Your task to perform on an android device: Go to Google maps Image 0: 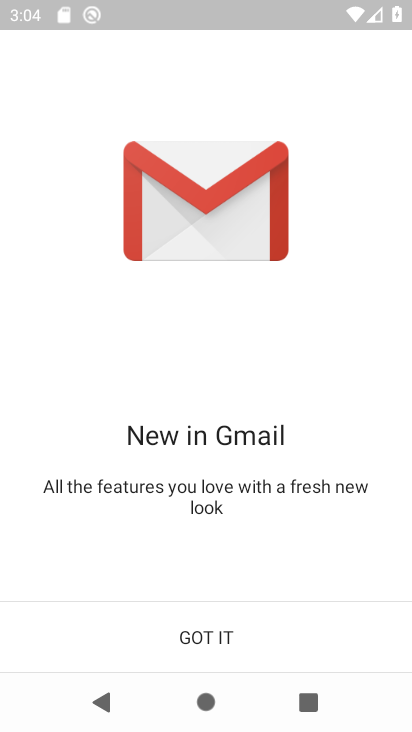
Step 0: press home button
Your task to perform on an android device: Go to Google maps Image 1: 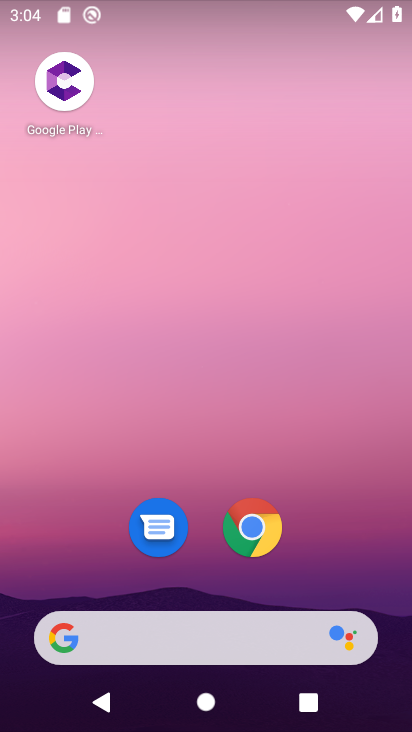
Step 1: drag from (386, 625) to (326, 77)
Your task to perform on an android device: Go to Google maps Image 2: 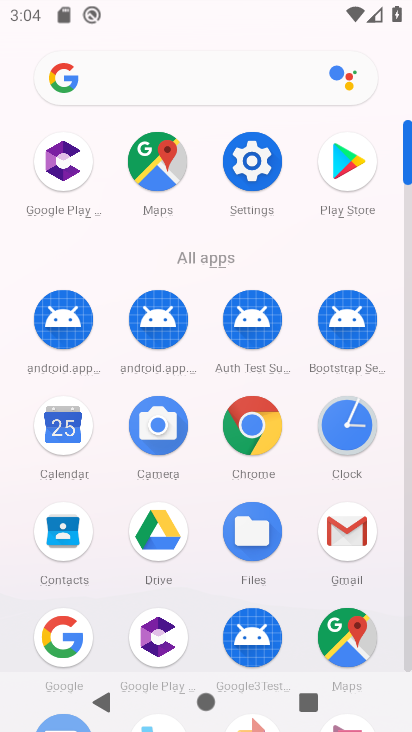
Step 2: click (407, 658)
Your task to perform on an android device: Go to Google maps Image 3: 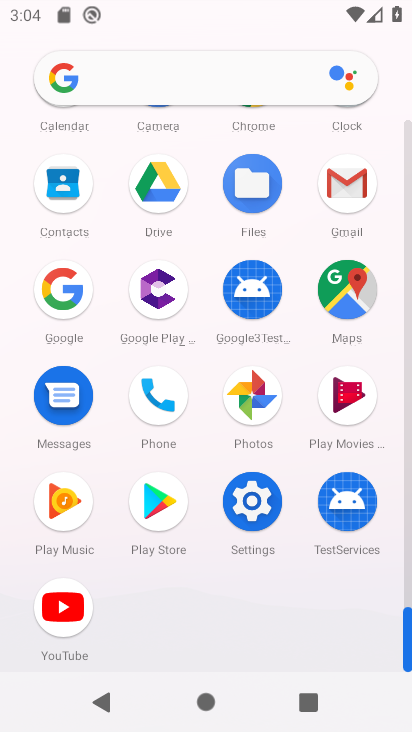
Step 3: click (348, 291)
Your task to perform on an android device: Go to Google maps Image 4: 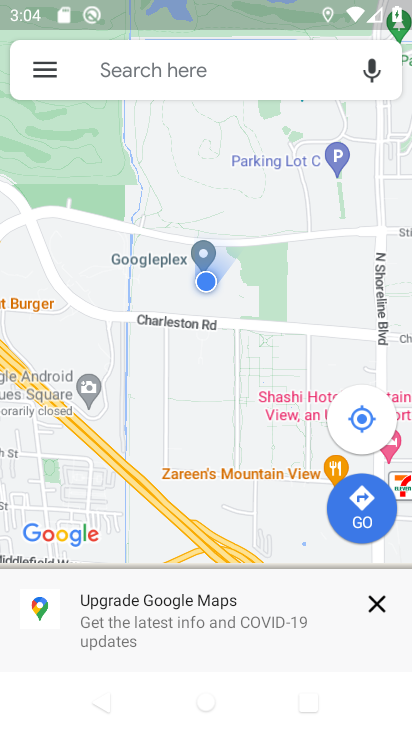
Step 4: task complete